Your task to perform on an android device: Search for bose soundsport free on amazon.com, select the first entry, add it to the cart, then select checkout. Image 0: 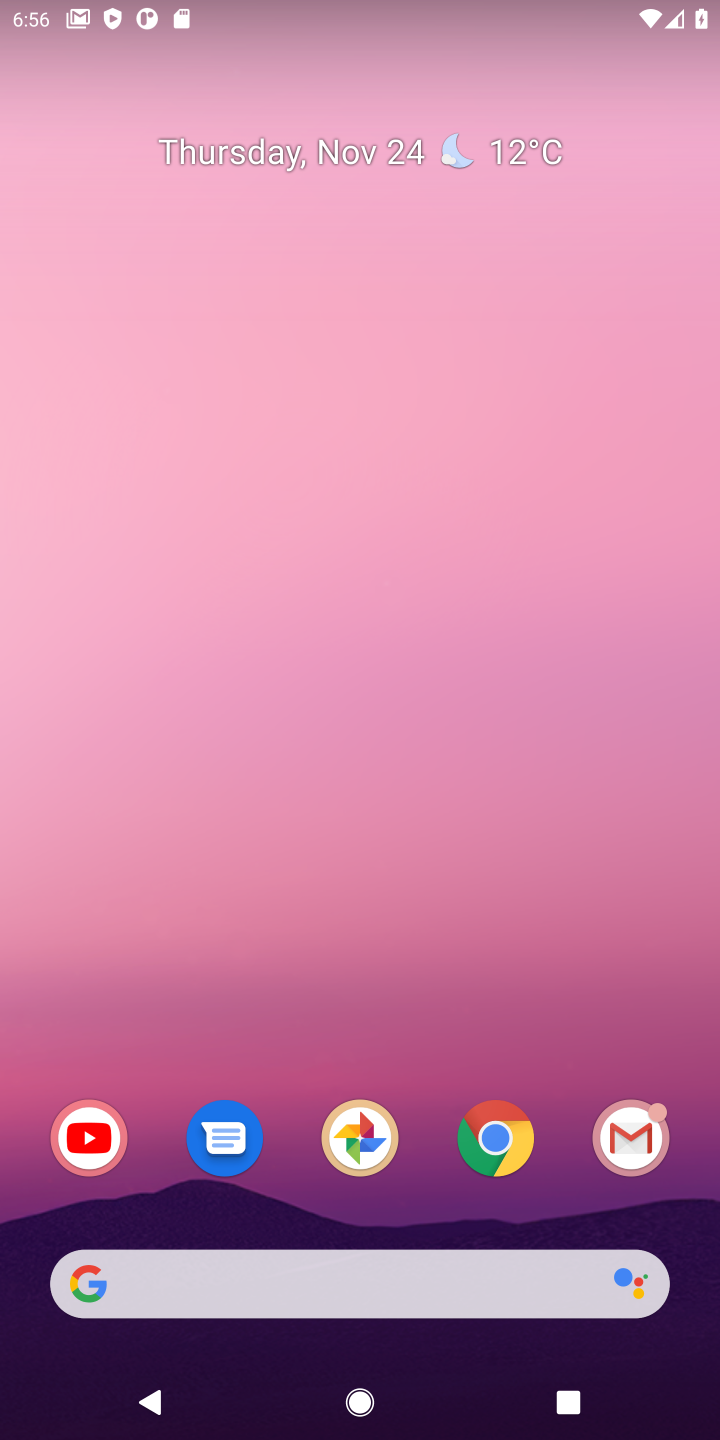
Step 0: click (475, 1151)
Your task to perform on an android device: Search for bose soundsport free on amazon.com, select the first entry, add it to the cart, then select checkout. Image 1: 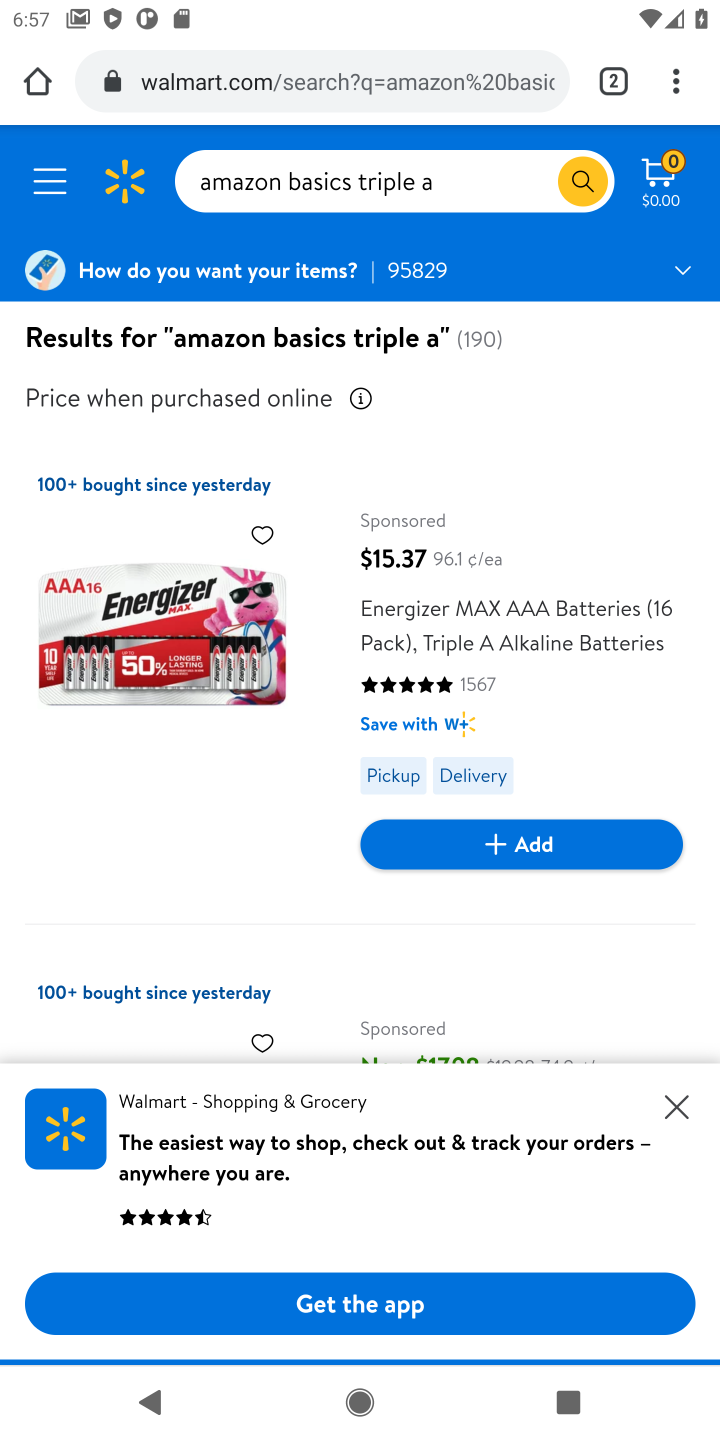
Step 1: click (606, 81)
Your task to perform on an android device: Search for bose soundsport free on amazon.com, select the first entry, add it to the cart, then select checkout. Image 2: 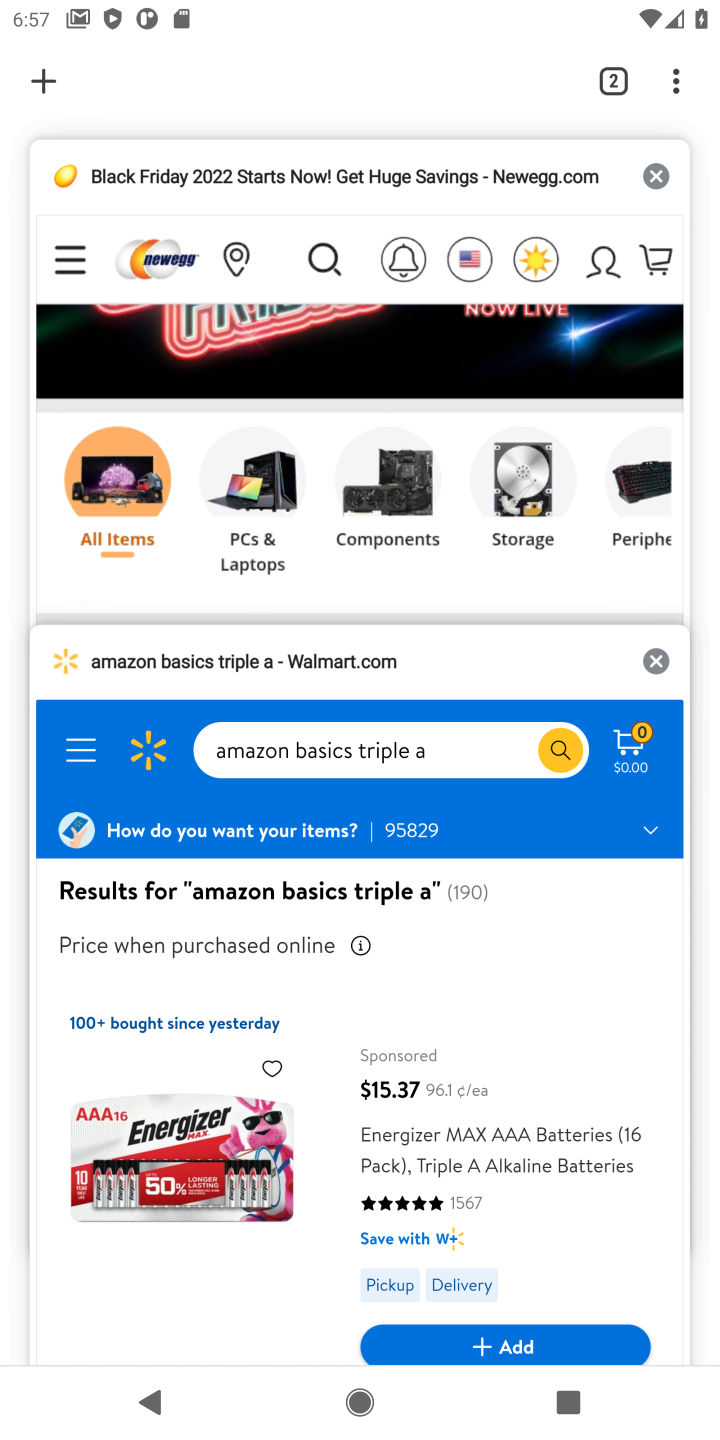
Step 2: click (51, 71)
Your task to perform on an android device: Search for bose soundsport free on amazon.com, select the first entry, add it to the cart, then select checkout. Image 3: 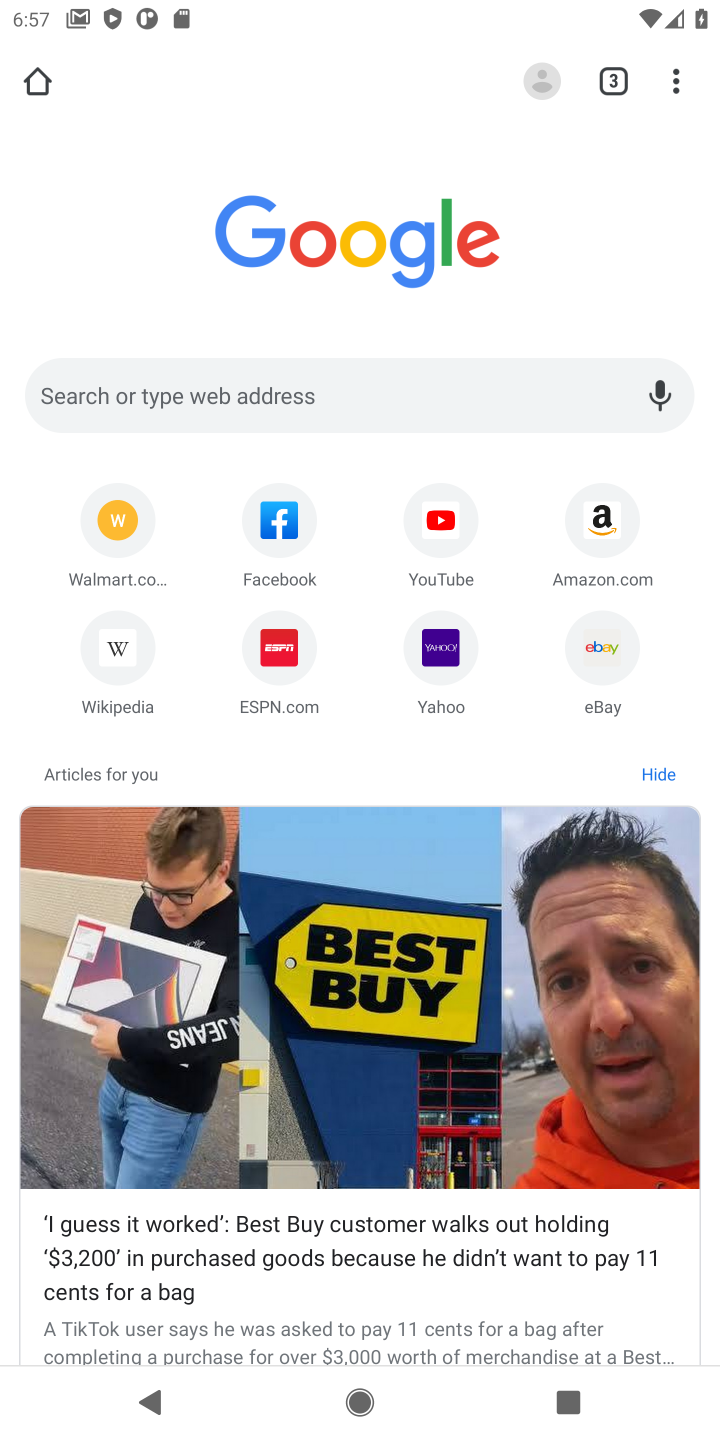
Step 3: click (589, 542)
Your task to perform on an android device: Search for bose soundsport free on amazon.com, select the first entry, add it to the cart, then select checkout. Image 4: 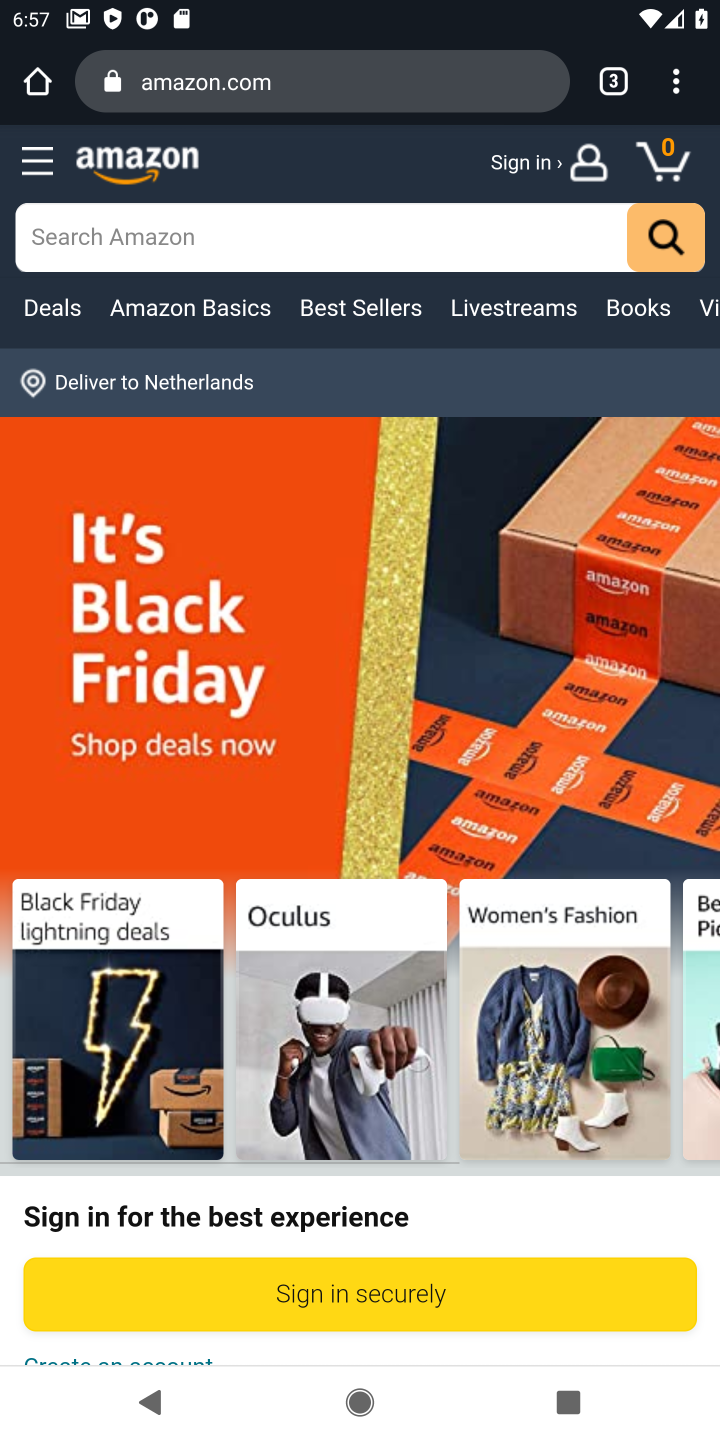
Step 4: click (332, 251)
Your task to perform on an android device: Search for bose soundsport free on amazon.com, select the first entry, add it to the cart, then select checkout. Image 5: 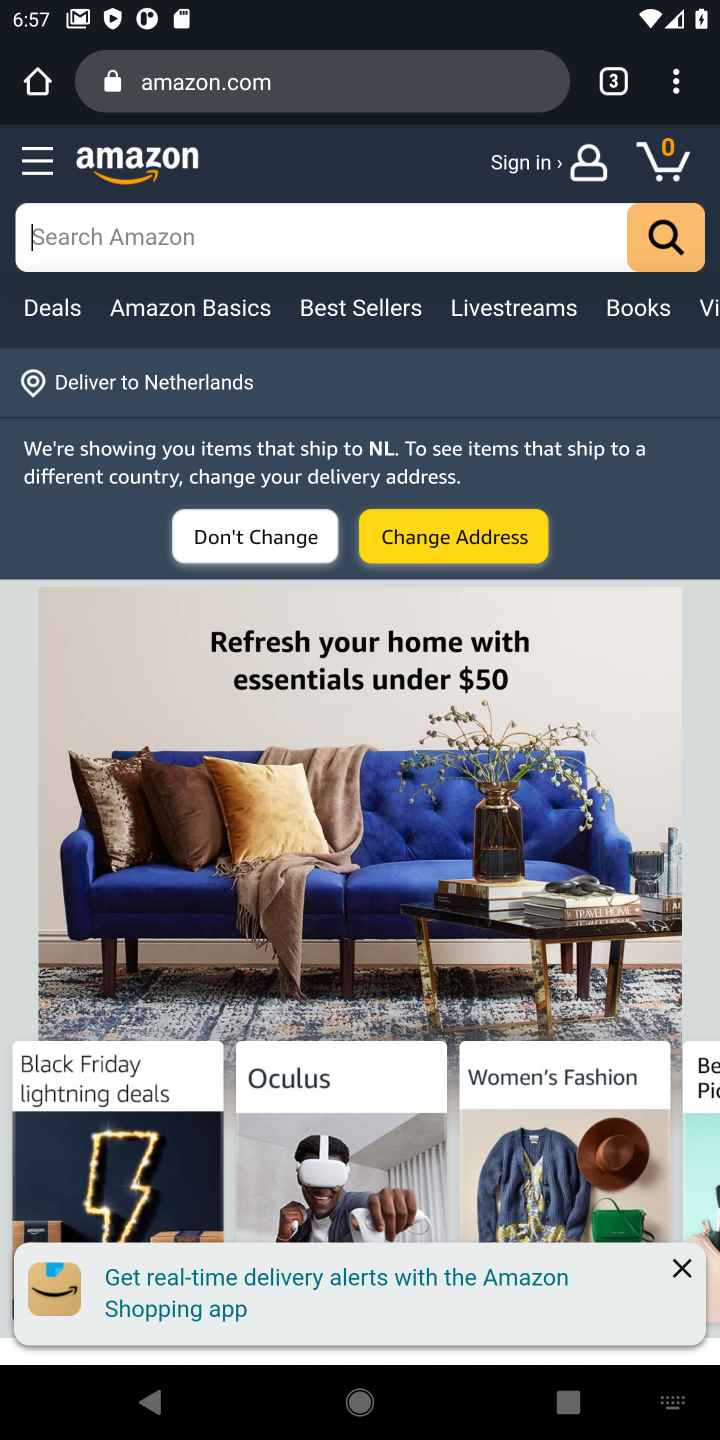
Step 5: click (286, 241)
Your task to perform on an android device: Search for bose soundsport free on amazon.com, select the first entry, add it to the cart, then select checkout. Image 6: 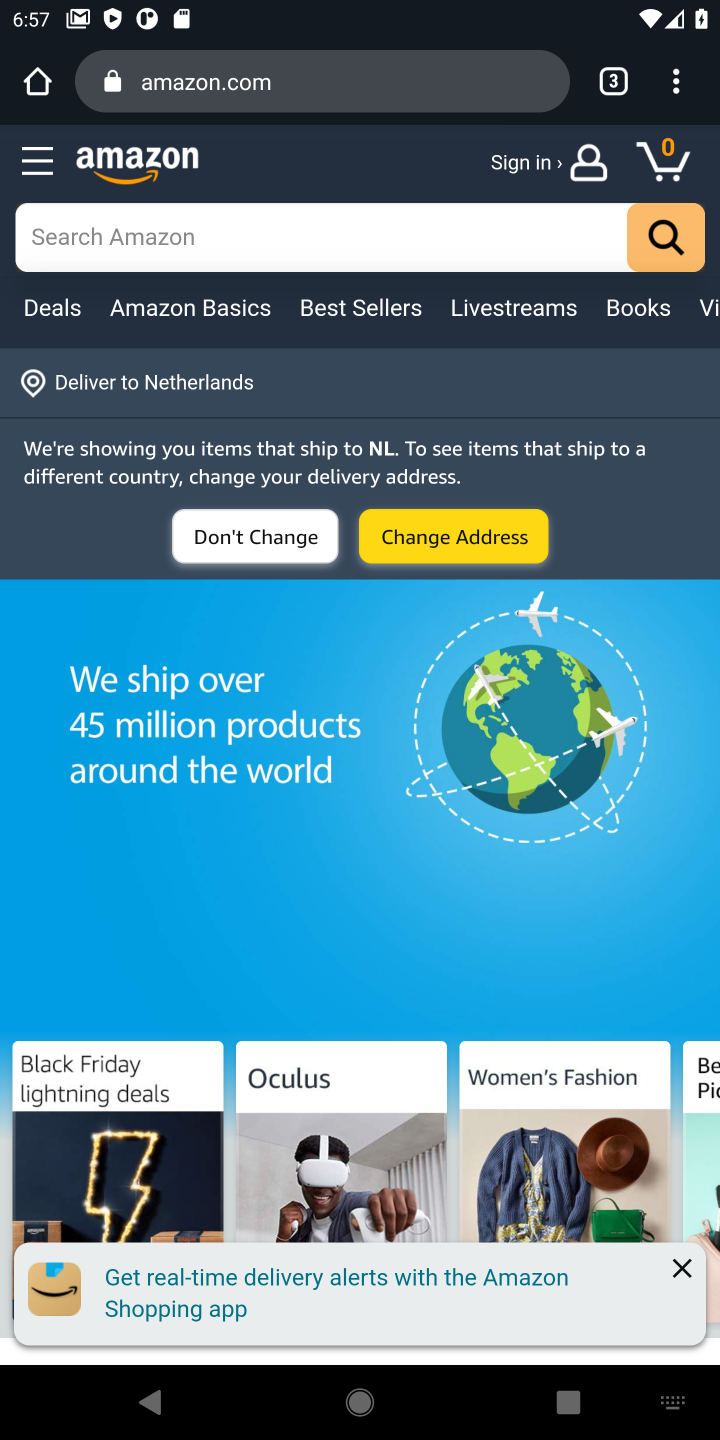
Step 6: type " bose soundsport free"
Your task to perform on an android device: Search for bose soundsport free on amazon.com, select the first entry, add it to the cart, then select checkout. Image 7: 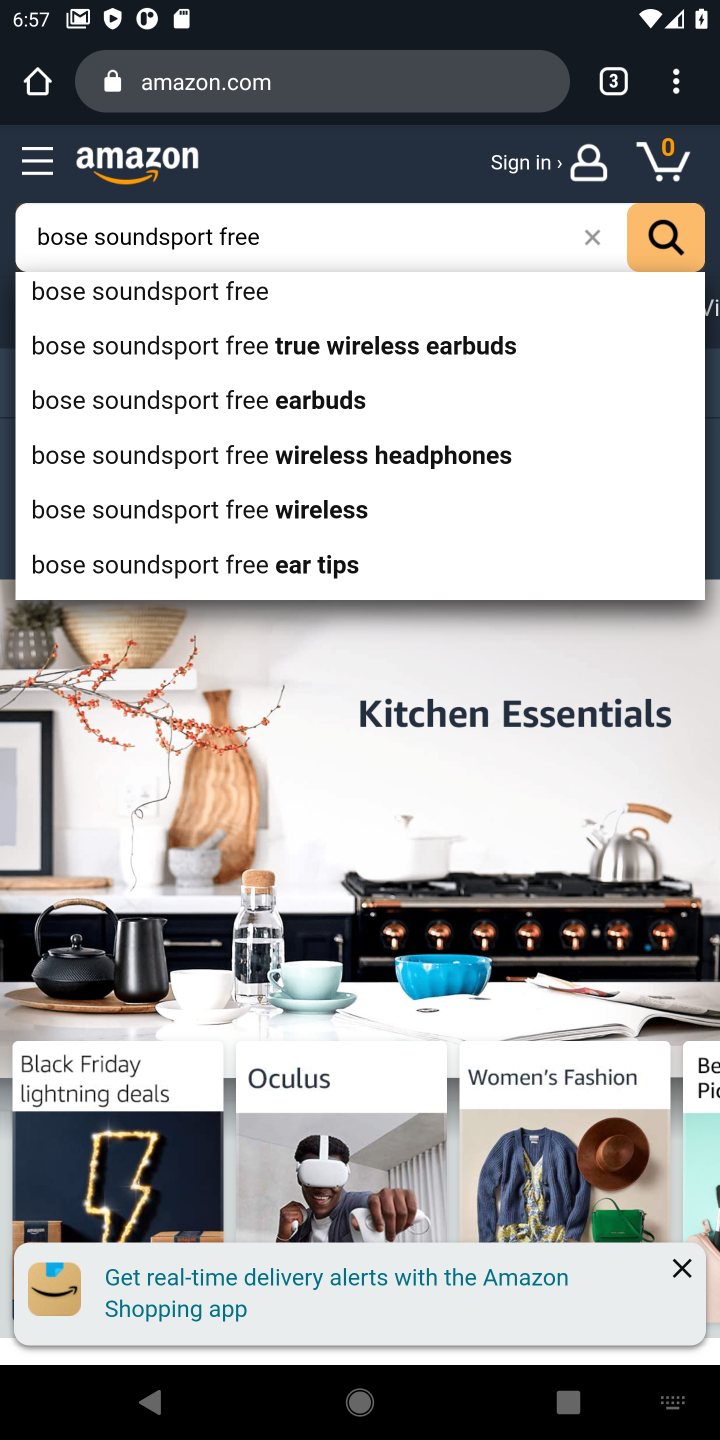
Step 7: click (177, 300)
Your task to perform on an android device: Search for bose soundsport free on amazon.com, select the first entry, add it to the cart, then select checkout. Image 8: 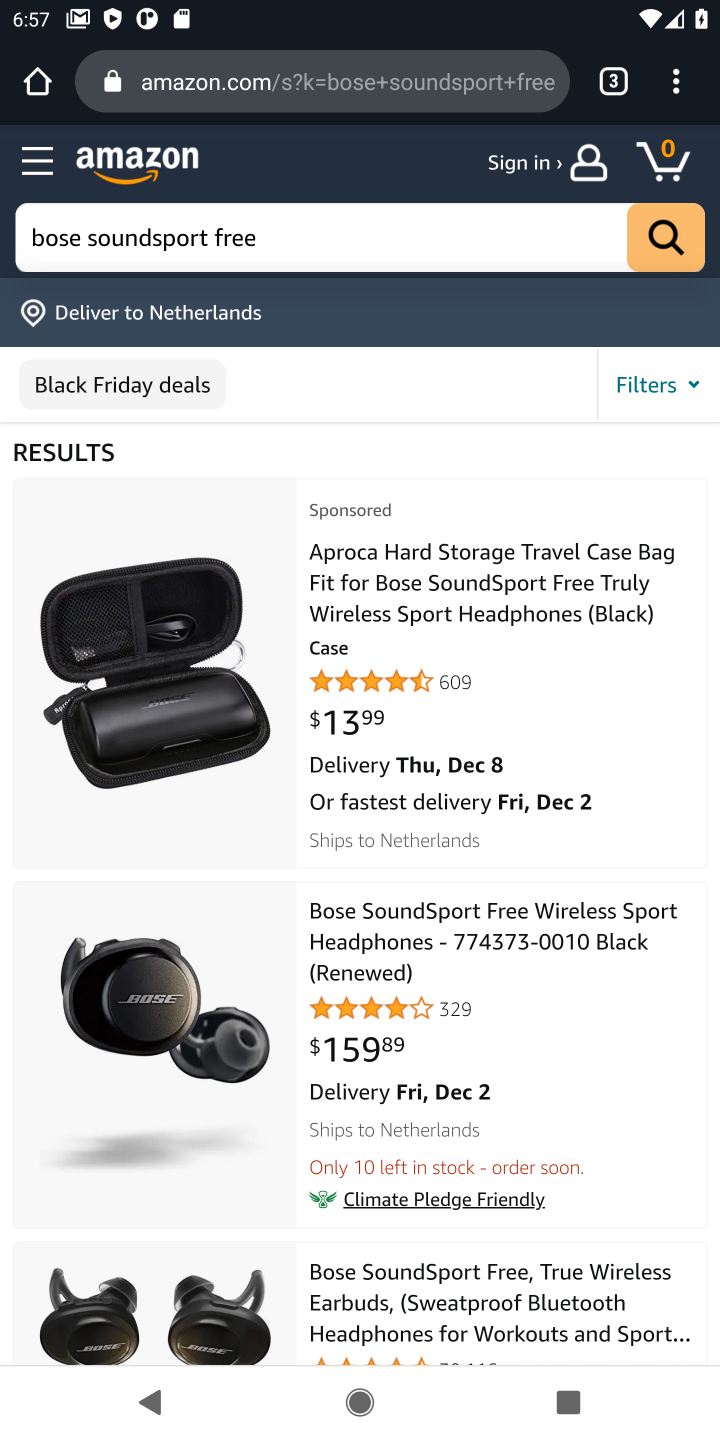
Step 8: drag from (222, 993) to (233, 698)
Your task to perform on an android device: Search for bose soundsport free on amazon.com, select the first entry, add it to the cart, then select checkout. Image 9: 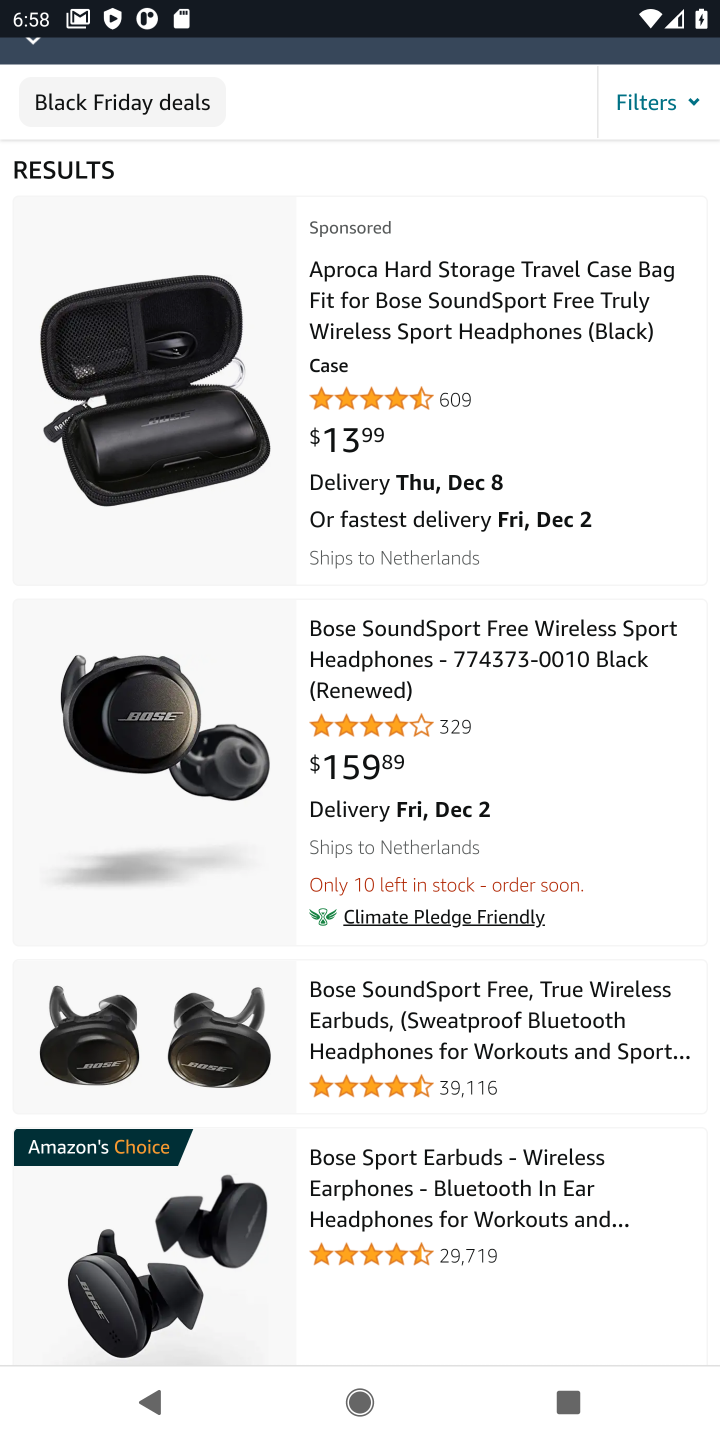
Step 9: click (192, 679)
Your task to perform on an android device: Search for bose soundsport free on amazon.com, select the first entry, add it to the cart, then select checkout. Image 10: 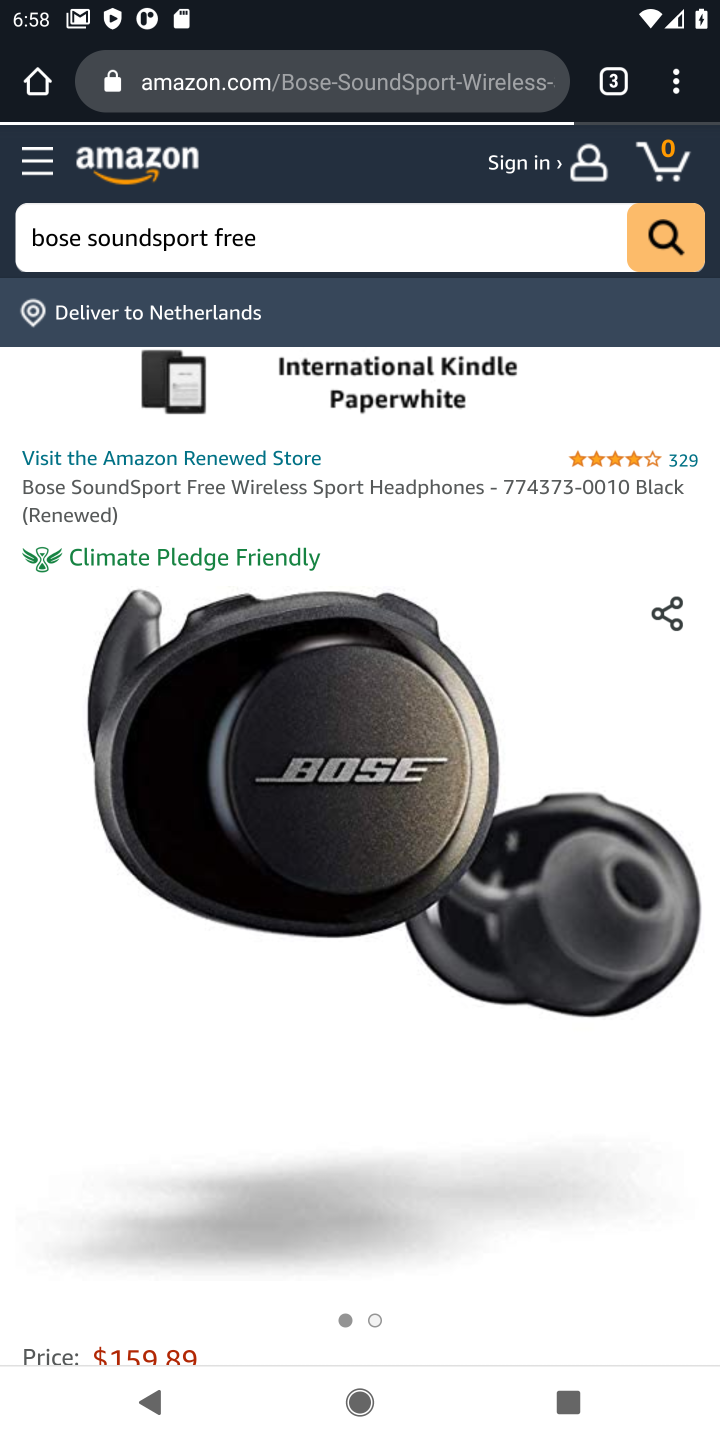
Step 10: press back button
Your task to perform on an android device: Search for bose soundsport free on amazon.com, select the first entry, add it to the cart, then select checkout. Image 11: 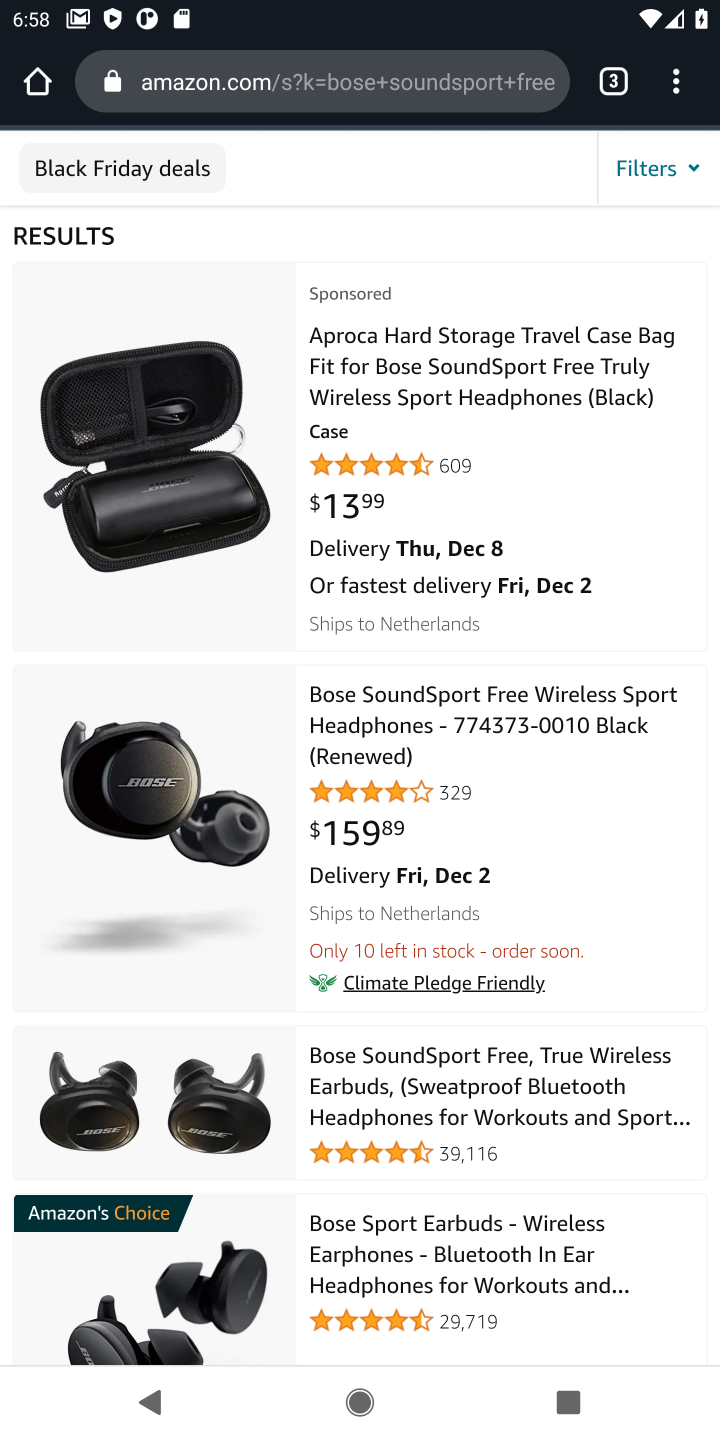
Step 11: click (211, 734)
Your task to perform on an android device: Search for bose soundsport free on amazon.com, select the first entry, add it to the cart, then select checkout. Image 12: 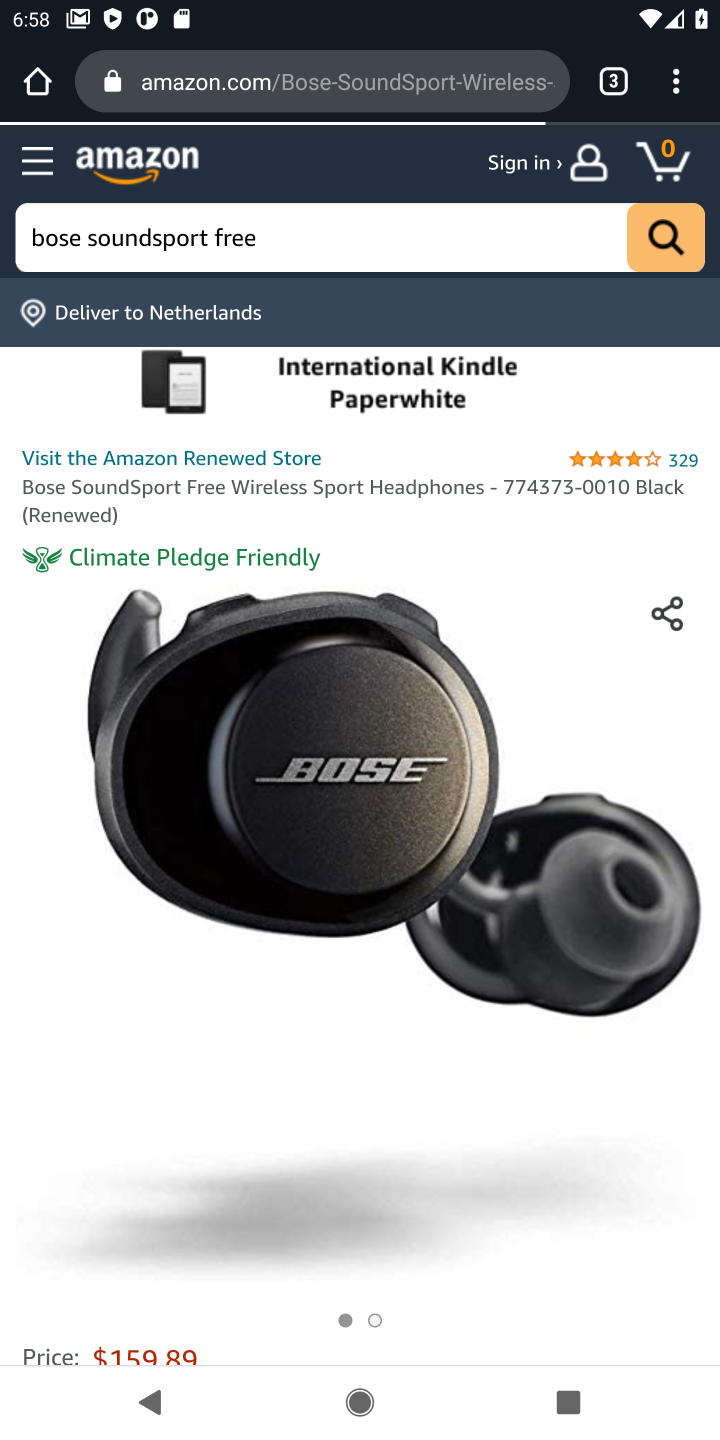
Step 12: drag from (247, 1040) to (353, 341)
Your task to perform on an android device: Search for bose soundsport free on amazon.com, select the first entry, add it to the cart, then select checkout. Image 13: 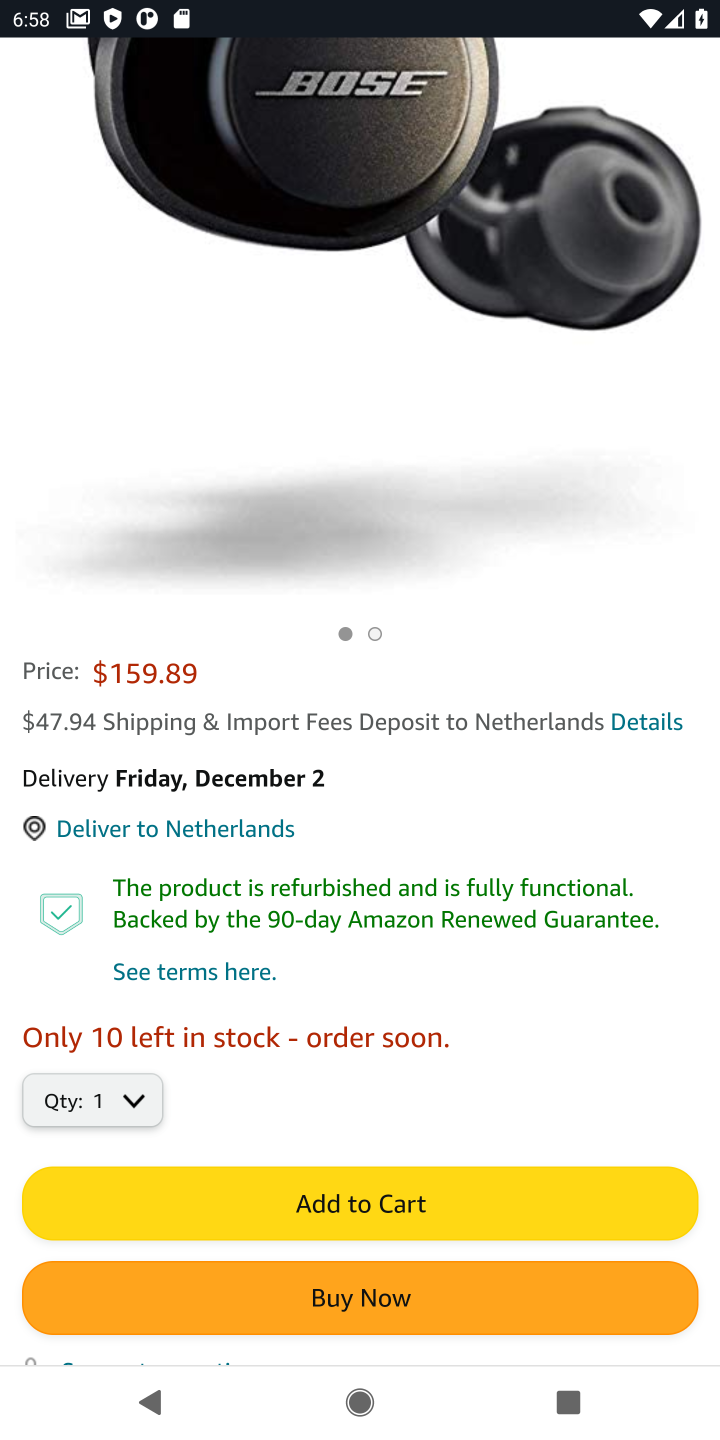
Step 13: click (334, 1203)
Your task to perform on an android device: Search for bose soundsport free on amazon.com, select the first entry, add it to the cart, then select checkout. Image 14: 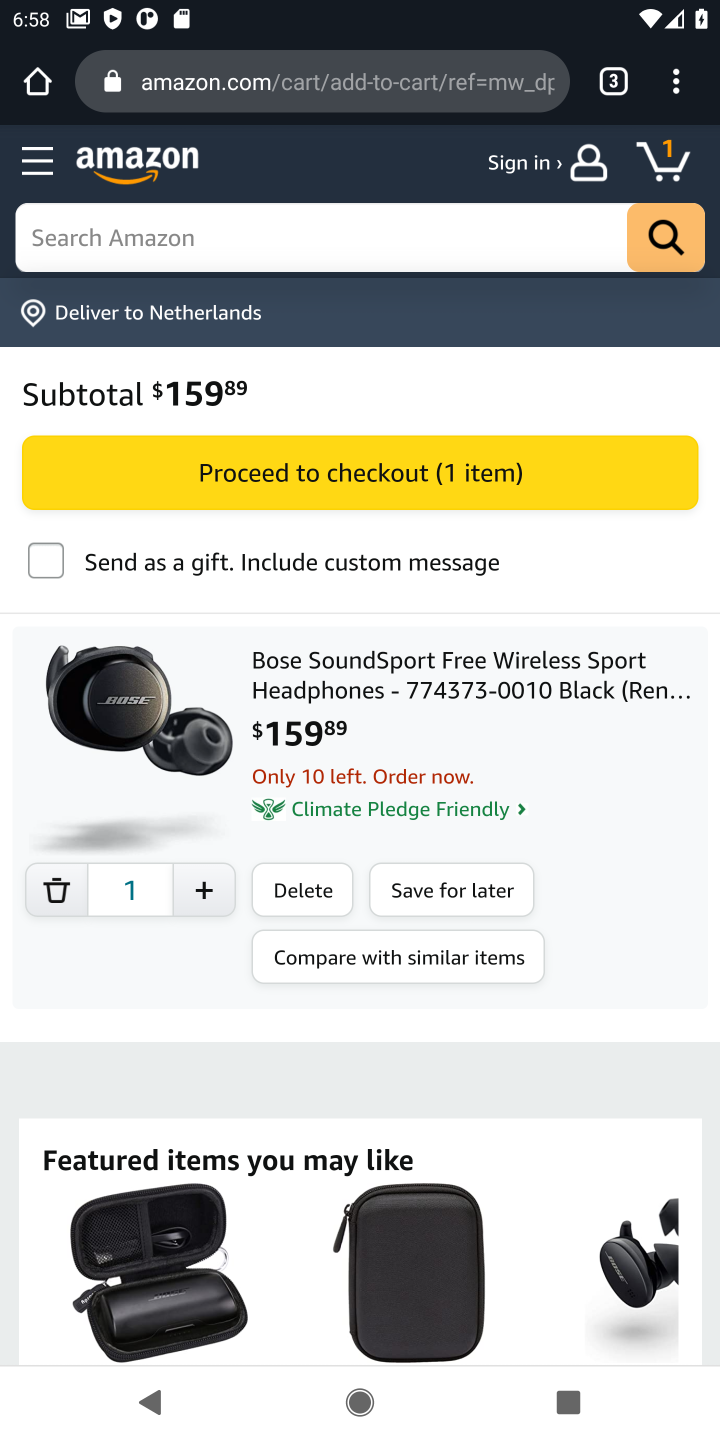
Step 14: click (407, 464)
Your task to perform on an android device: Search for bose soundsport free on amazon.com, select the first entry, add it to the cart, then select checkout. Image 15: 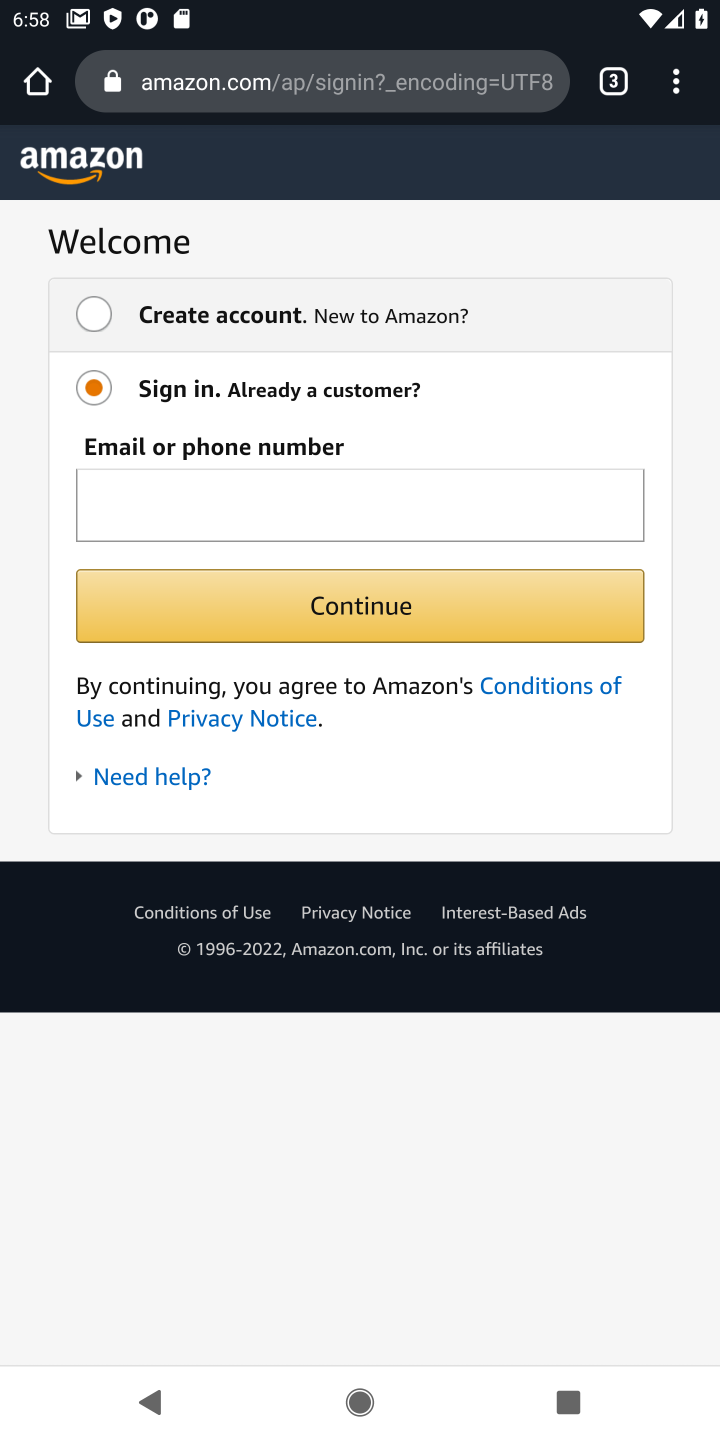
Step 15: task complete